Your task to perform on an android device: check storage Image 0: 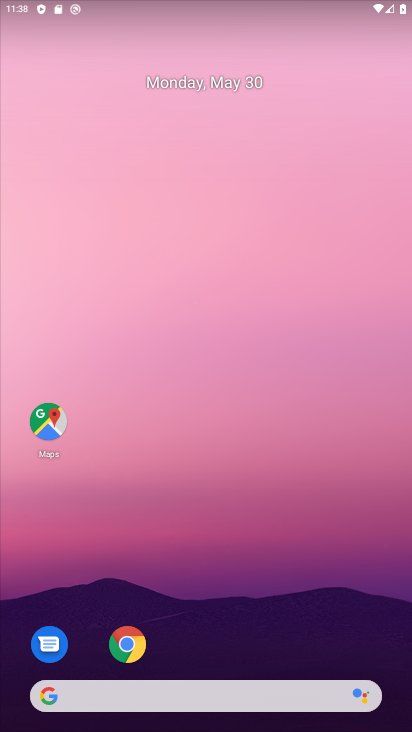
Step 0: drag from (304, 141) to (195, 6)
Your task to perform on an android device: check storage Image 1: 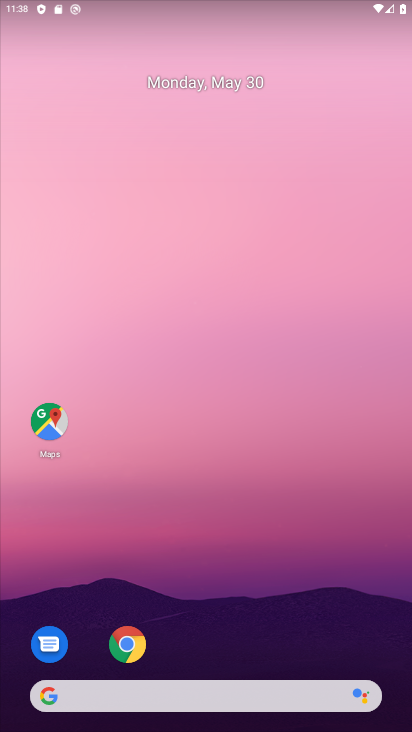
Step 1: drag from (181, 640) to (280, 62)
Your task to perform on an android device: check storage Image 2: 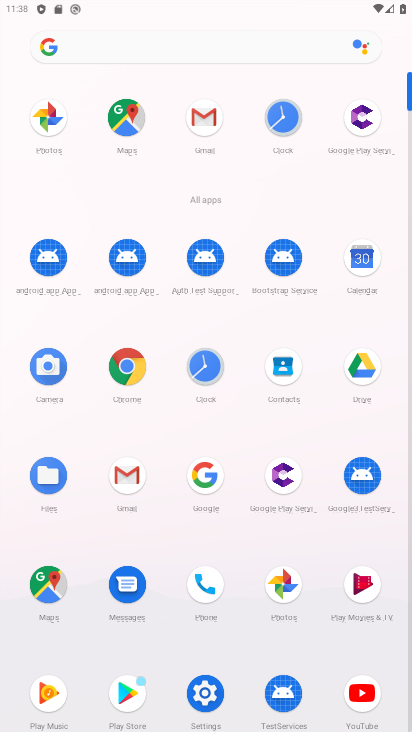
Step 2: click (209, 689)
Your task to perform on an android device: check storage Image 3: 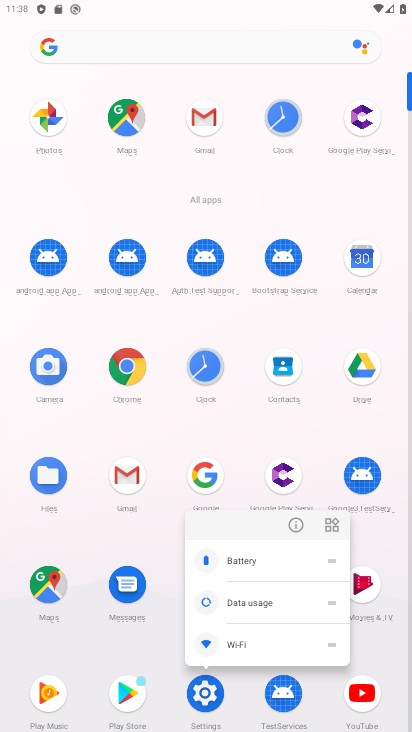
Step 3: click (297, 523)
Your task to perform on an android device: check storage Image 4: 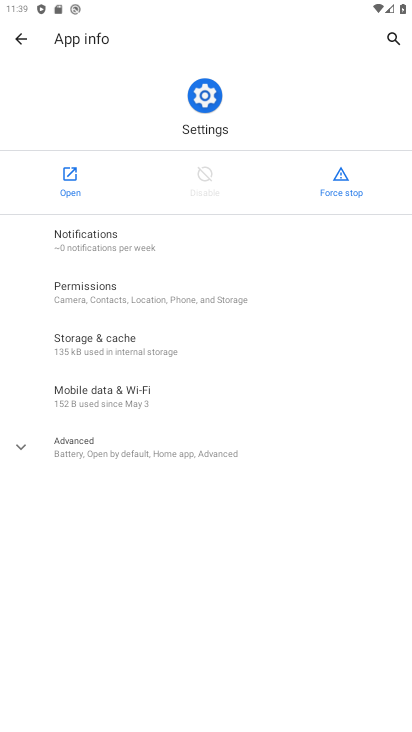
Step 4: click (45, 136)
Your task to perform on an android device: check storage Image 5: 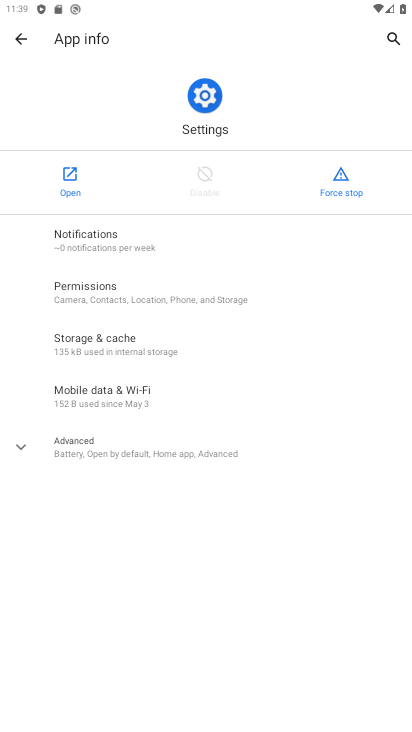
Step 5: click (76, 175)
Your task to perform on an android device: check storage Image 6: 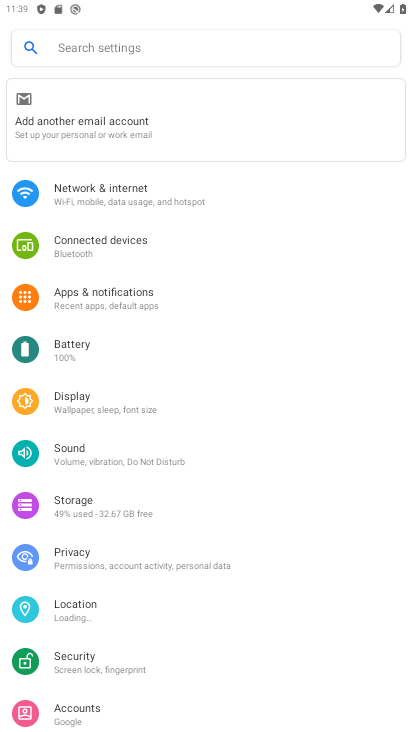
Step 6: click (97, 499)
Your task to perform on an android device: check storage Image 7: 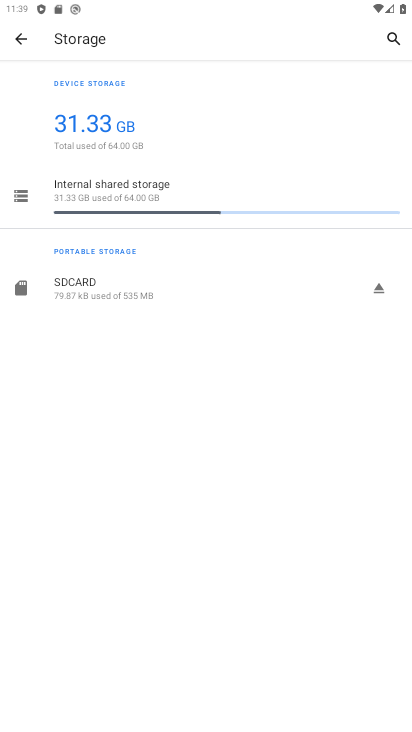
Step 7: task complete